Your task to perform on an android device: Go to wifi settings Image 0: 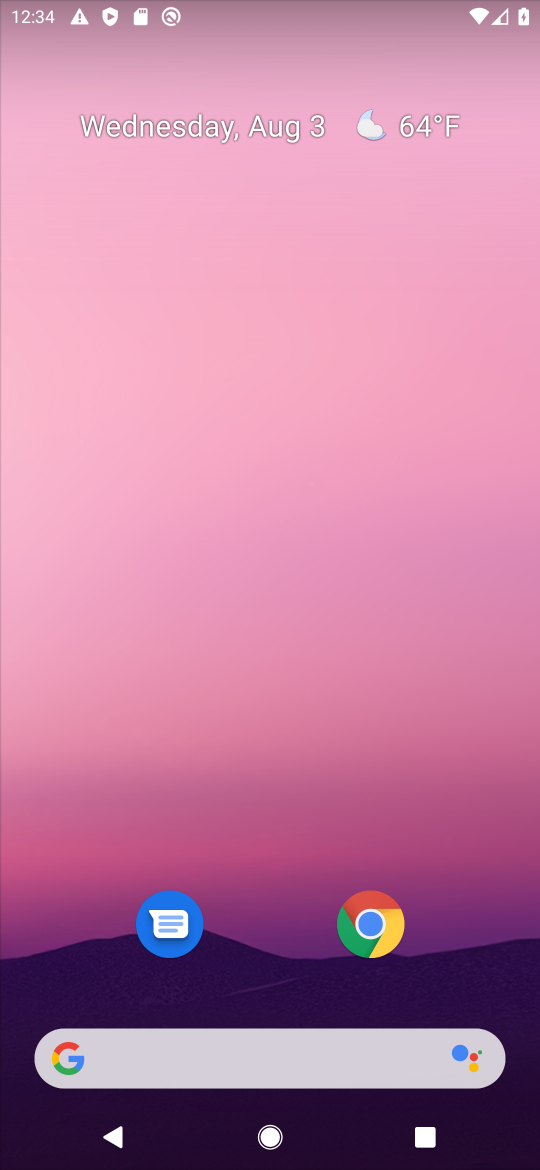
Step 0: drag from (122, 3) to (331, 907)
Your task to perform on an android device: Go to wifi settings Image 1: 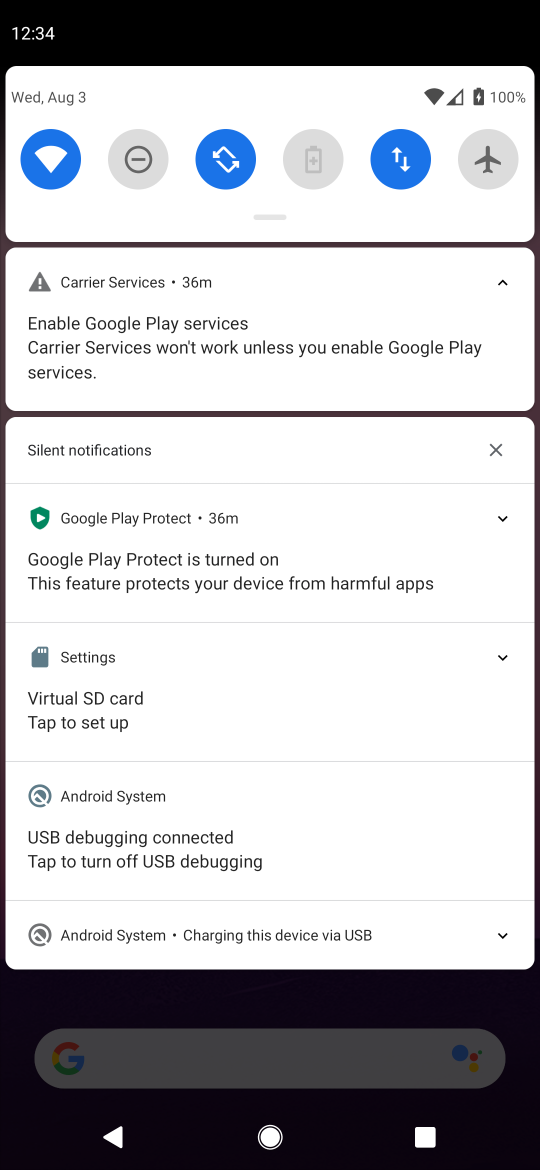
Step 1: click (52, 161)
Your task to perform on an android device: Go to wifi settings Image 2: 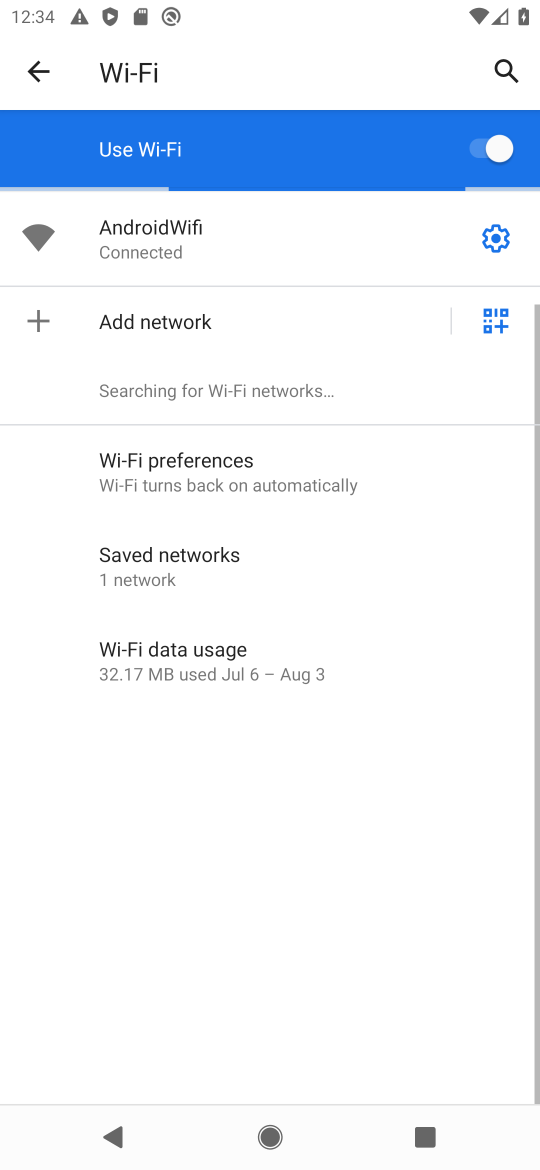
Step 2: task complete